Your task to perform on an android device: Go to Maps Image 0: 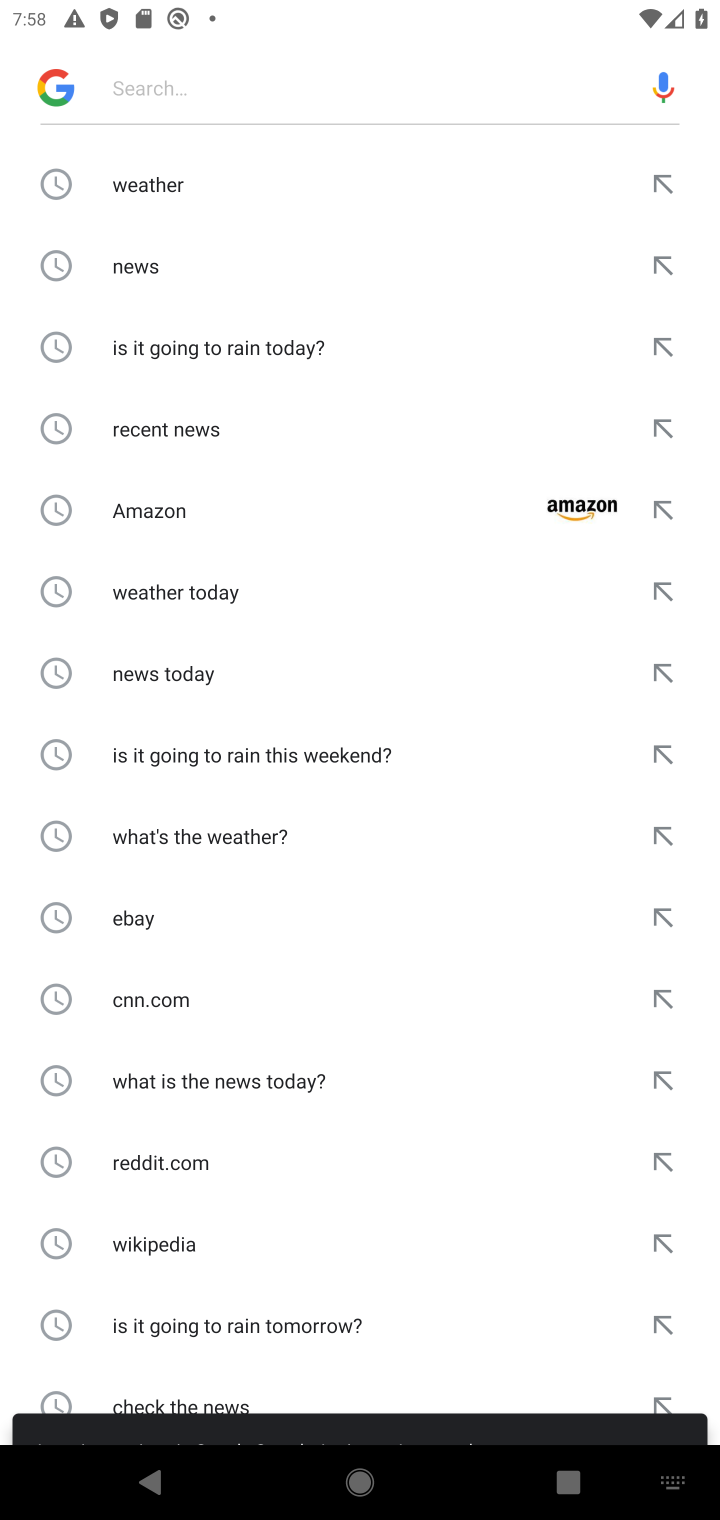
Step 0: press back button
Your task to perform on an android device: Go to Maps Image 1: 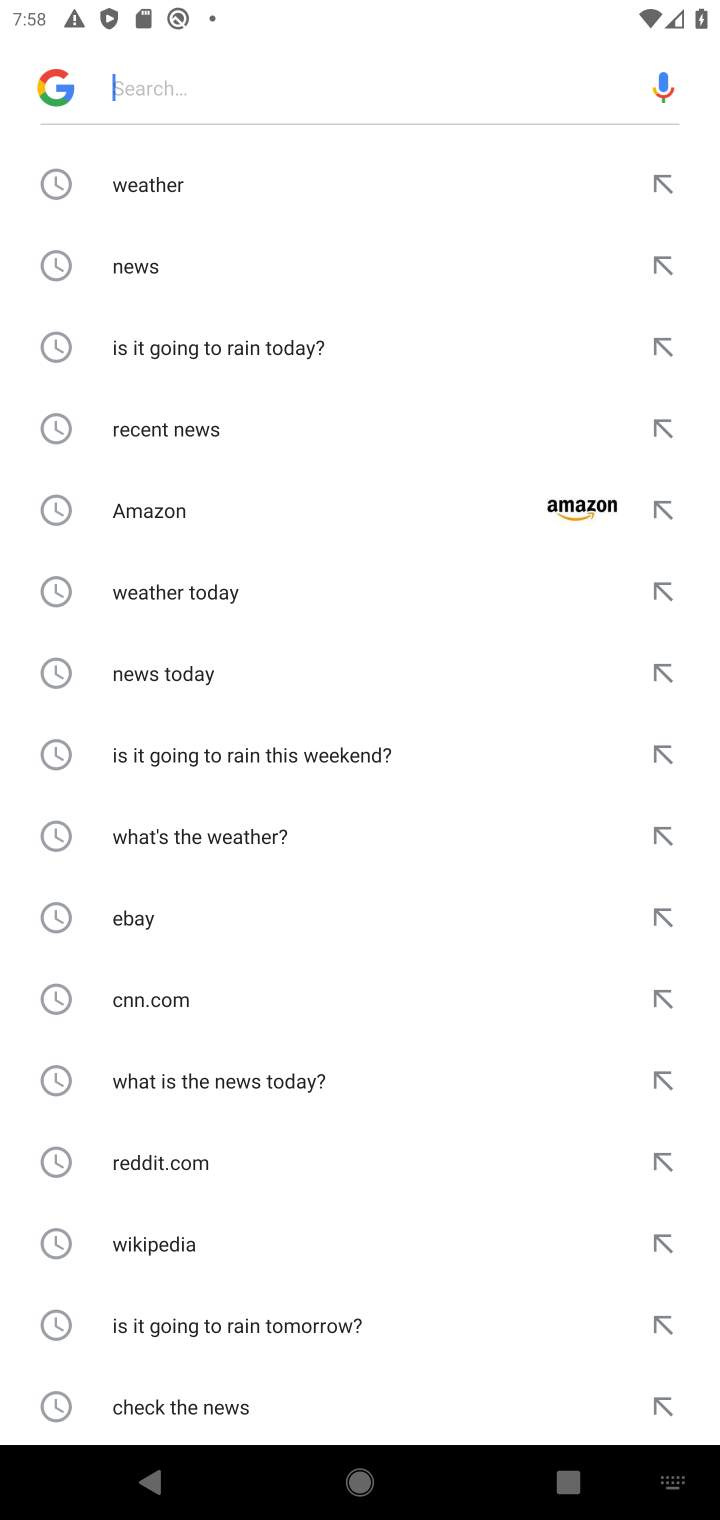
Step 1: press back button
Your task to perform on an android device: Go to Maps Image 2: 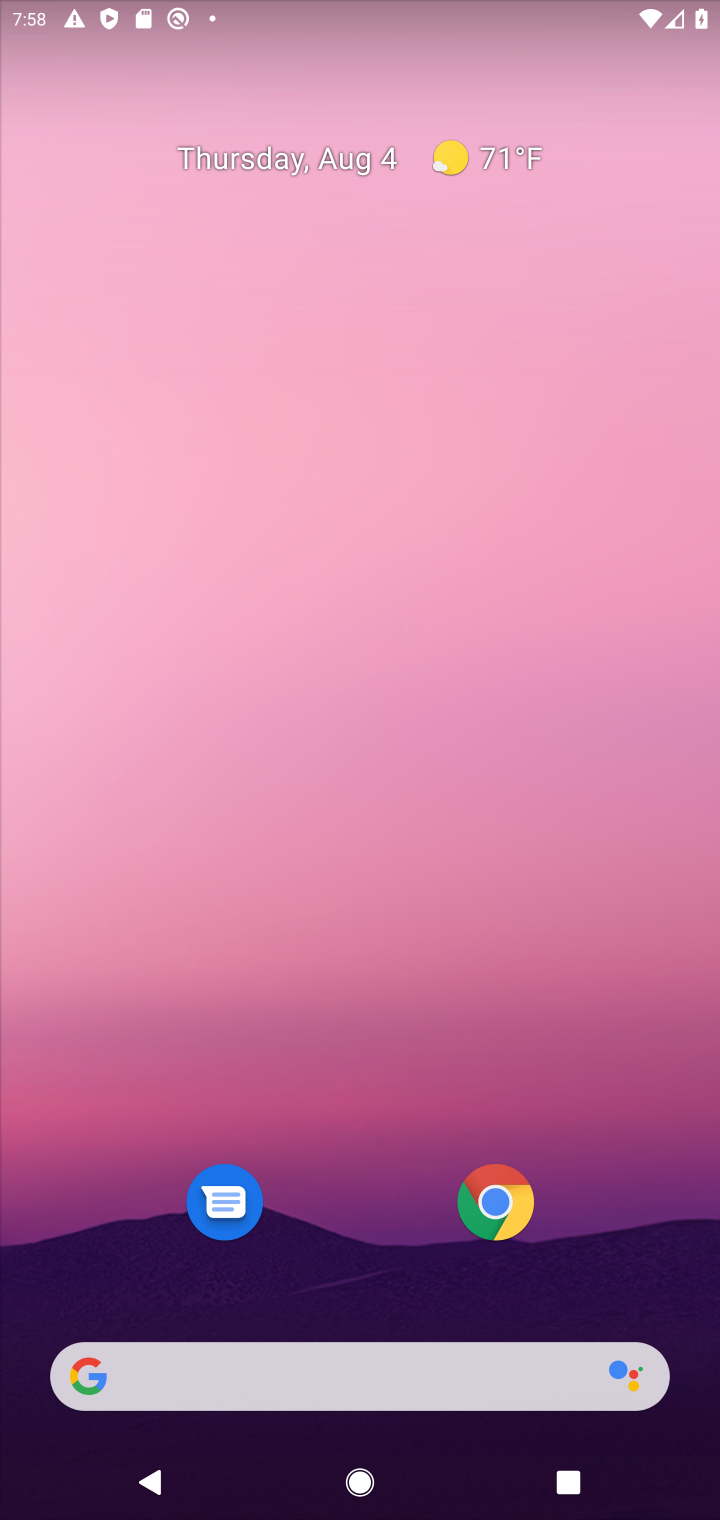
Step 2: press back button
Your task to perform on an android device: Go to Maps Image 3: 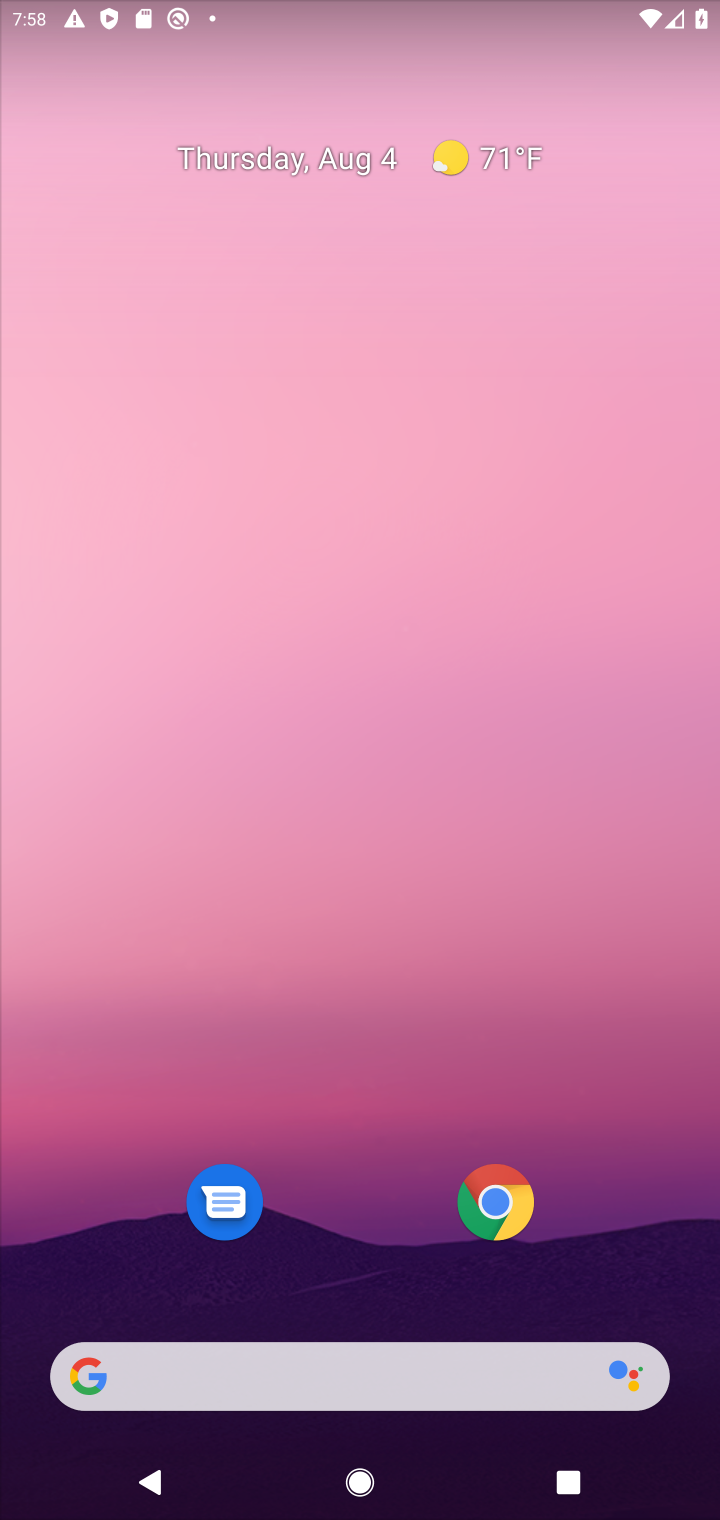
Step 3: press back button
Your task to perform on an android device: Go to Maps Image 4: 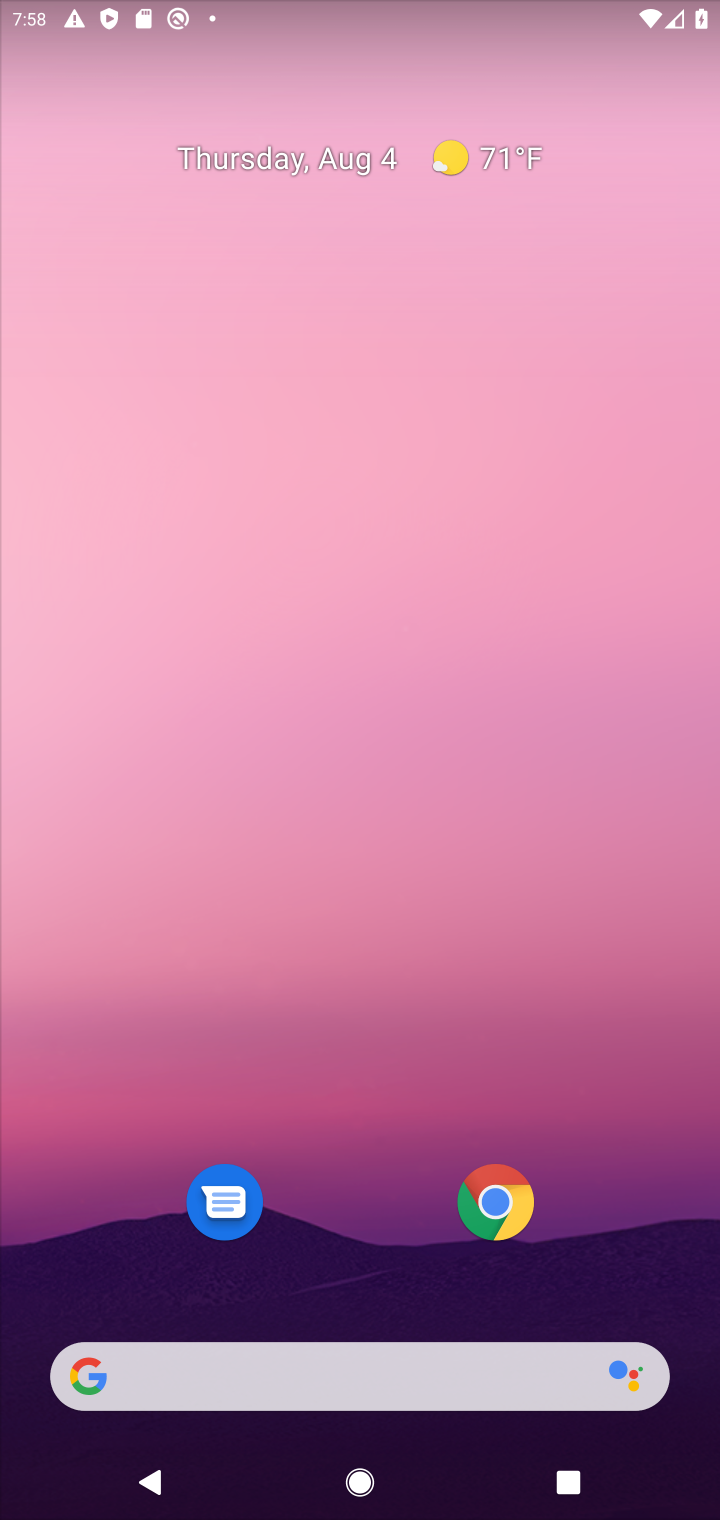
Step 4: drag from (328, 1080) to (263, 344)
Your task to perform on an android device: Go to Maps Image 5: 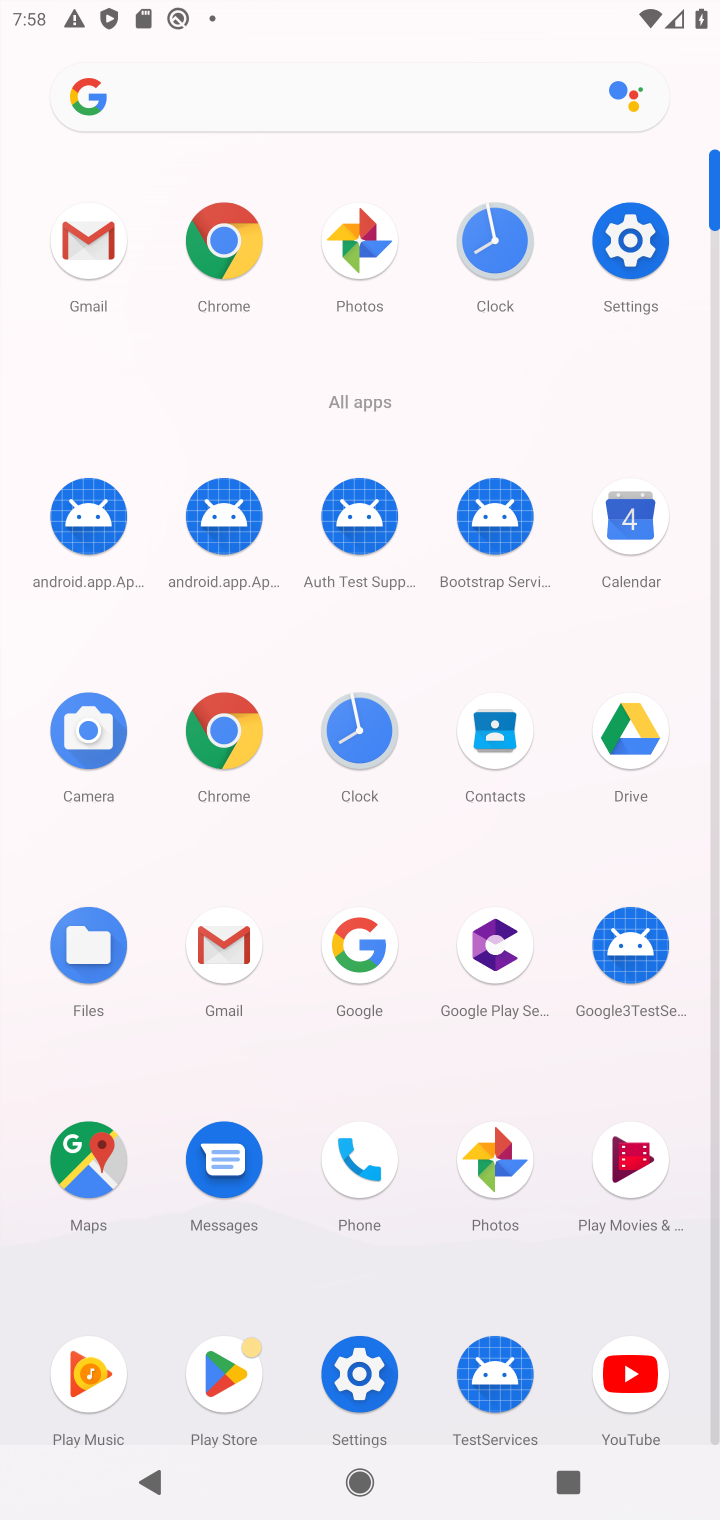
Step 5: click (75, 1162)
Your task to perform on an android device: Go to Maps Image 6: 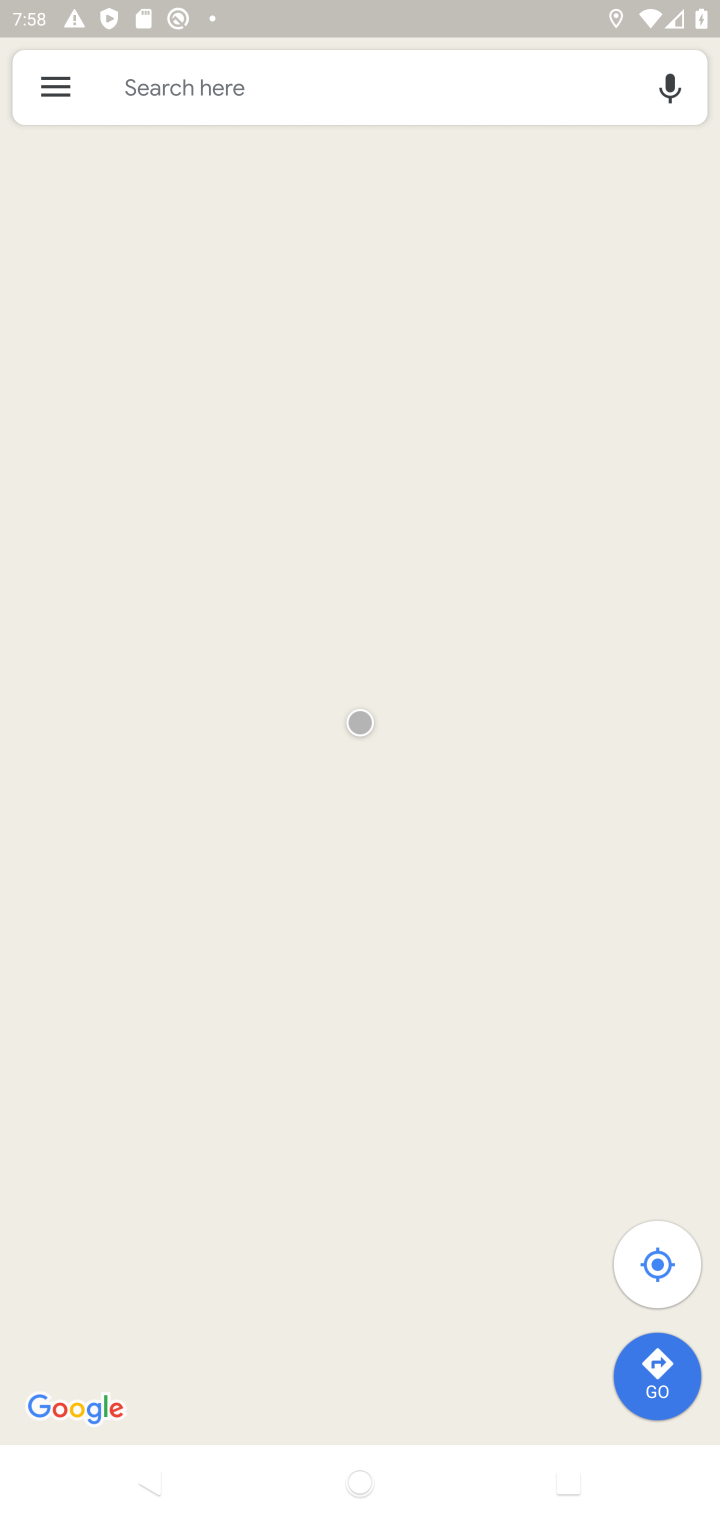
Step 6: task complete